Your task to perform on an android device: read, delete, or share a saved page in the chrome app Image 0: 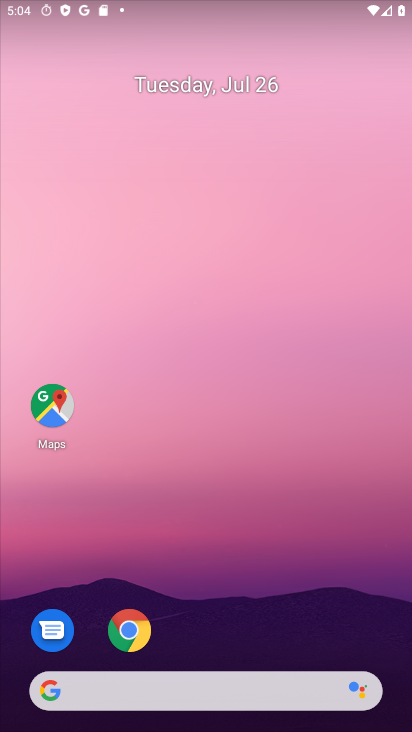
Step 0: click (221, 66)
Your task to perform on an android device: read, delete, or share a saved page in the chrome app Image 1: 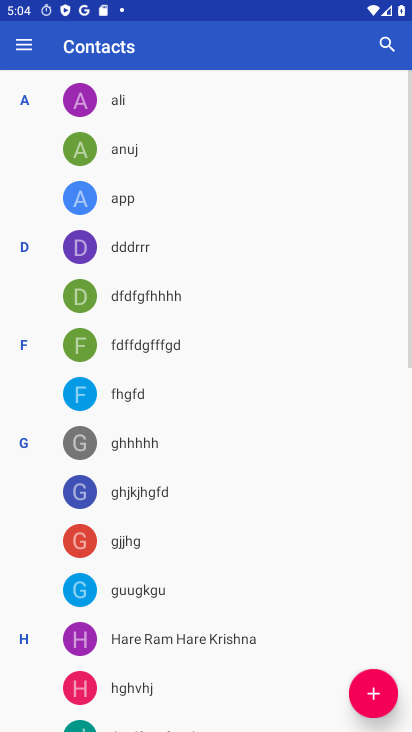
Step 1: press home button
Your task to perform on an android device: read, delete, or share a saved page in the chrome app Image 2: 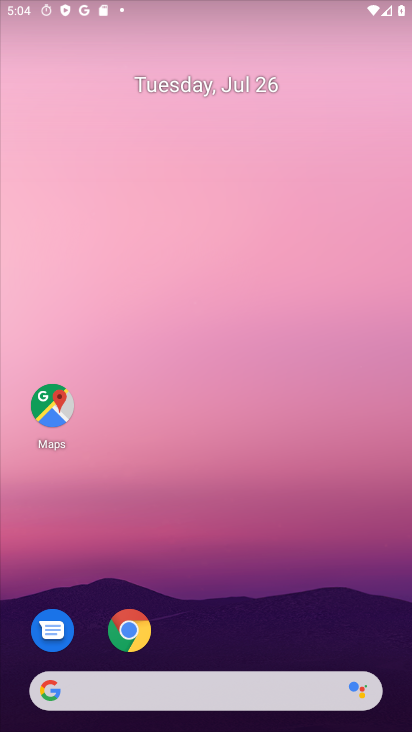
Step 2: drag from (258, 656) to (232, 116)
Your task to perform on an android device: read, delete, or share a saved page in the chrome app Image 3: 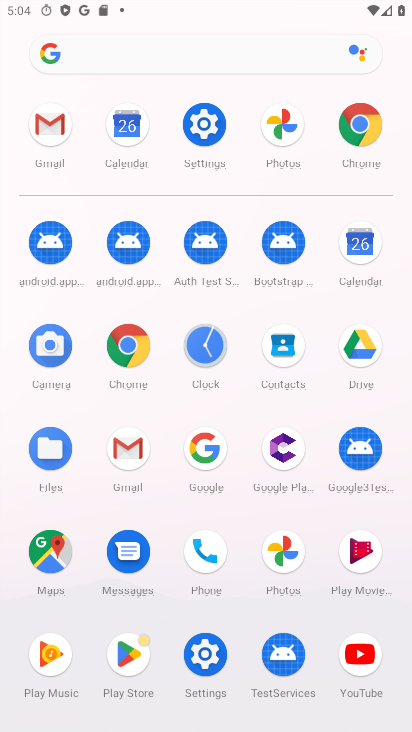
Step 3: click (365, 120)
Your task to perform on an android device: read, delete, or share a saved page in the chrome app Image 4: 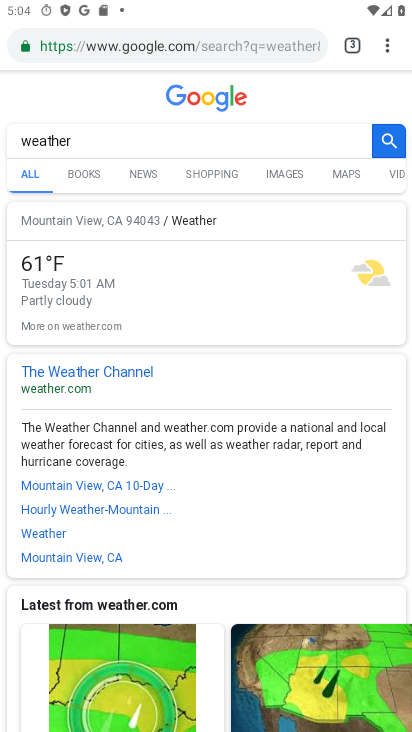
Step 4: task complete